Your task to perform on an android device: install app "eBay: The shopping marketplace" Image 0: 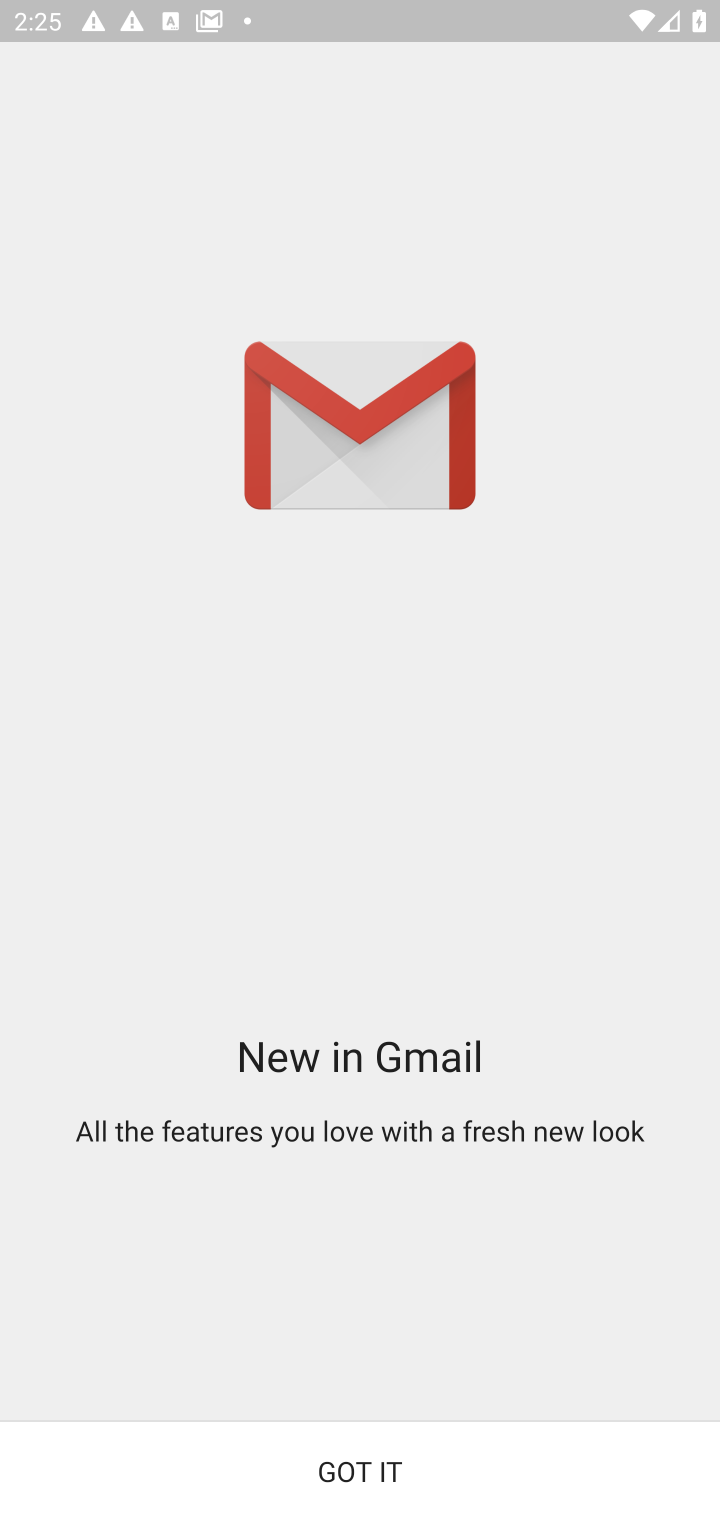
Step 0: press home button
Your task to perform on an android device: install app "eBay: The shopping marketplace" Image 1: 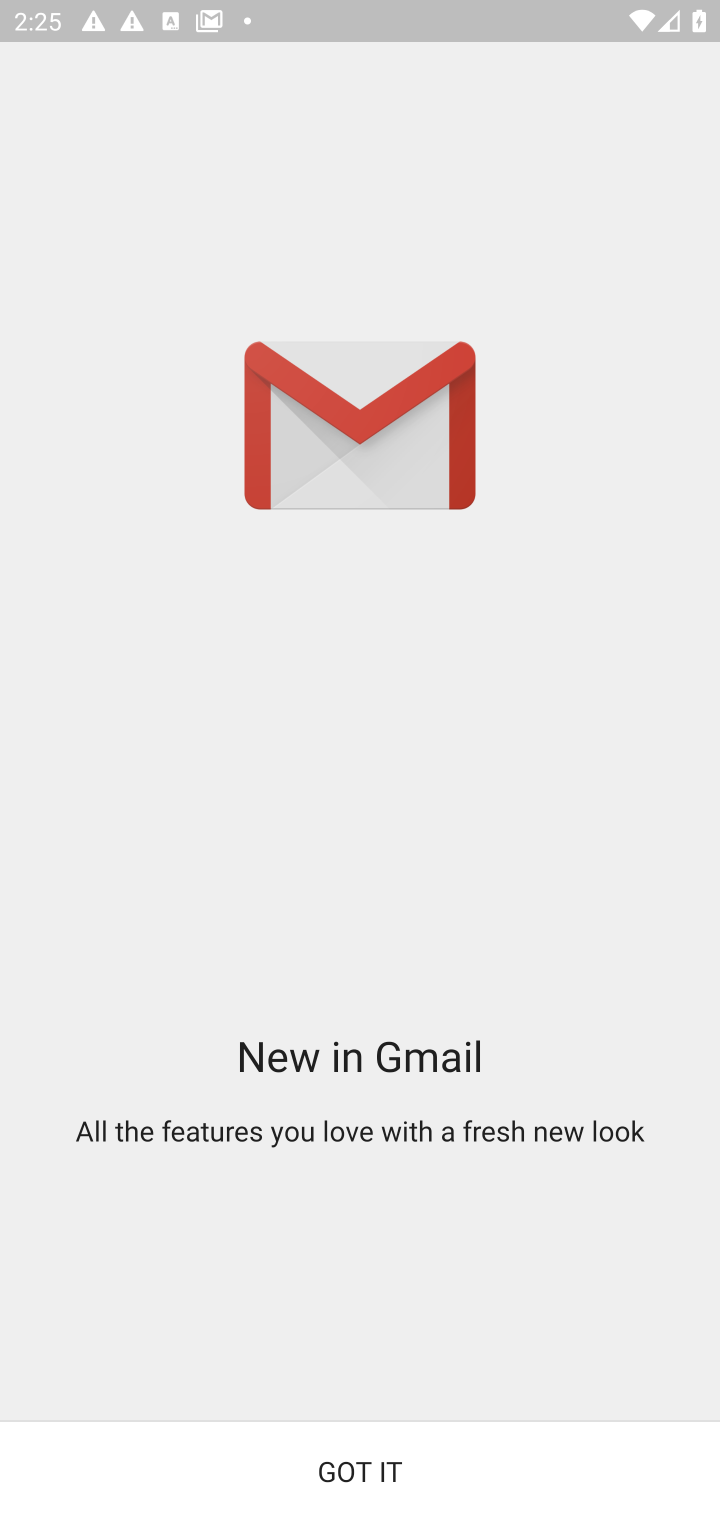
Step 1: press home button
Your task to perform on an android device: install app "eBay: The shopping marketplace" Image 2: 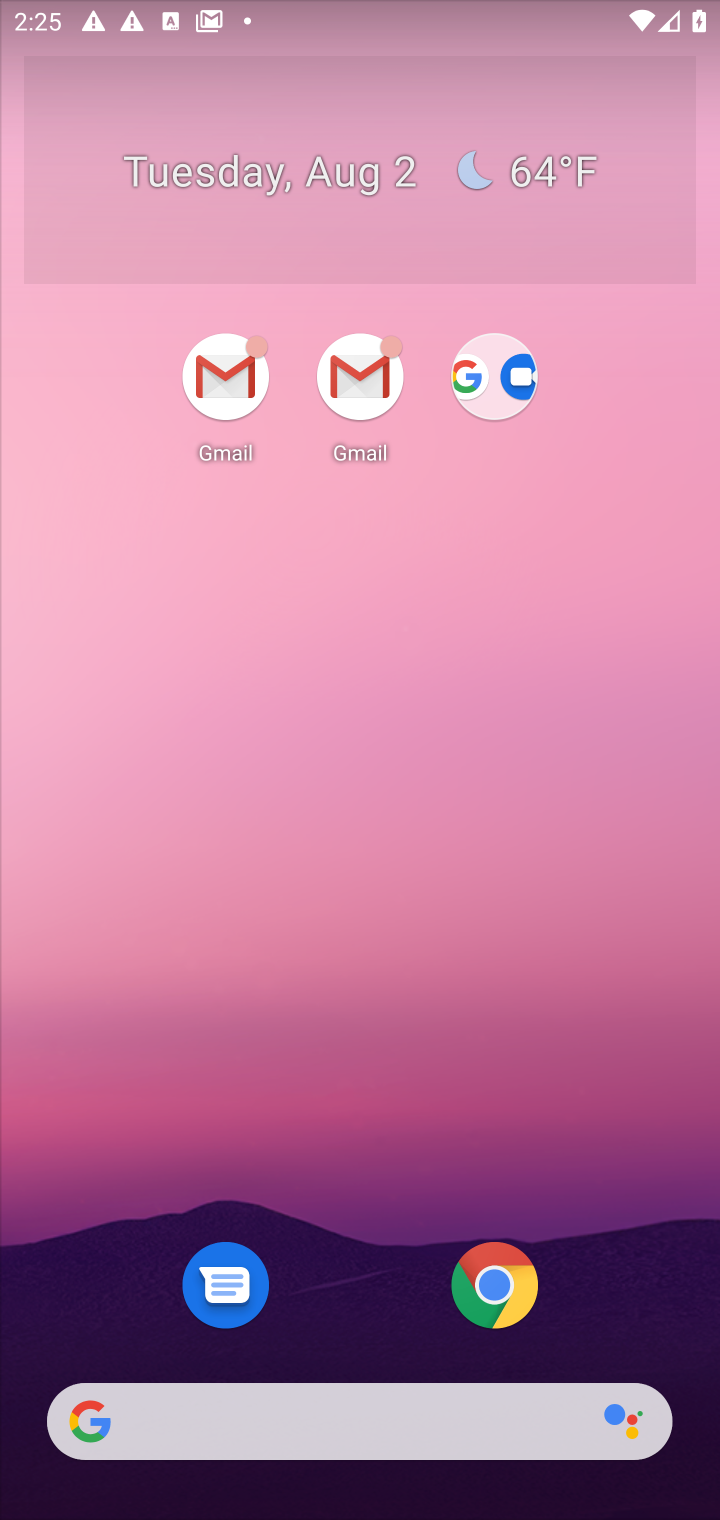
Step 2: drag from (370, 1326) to (446, 85)
Your task to perform on an android device: install app "eBay: The shopping marketplace" Image 3: 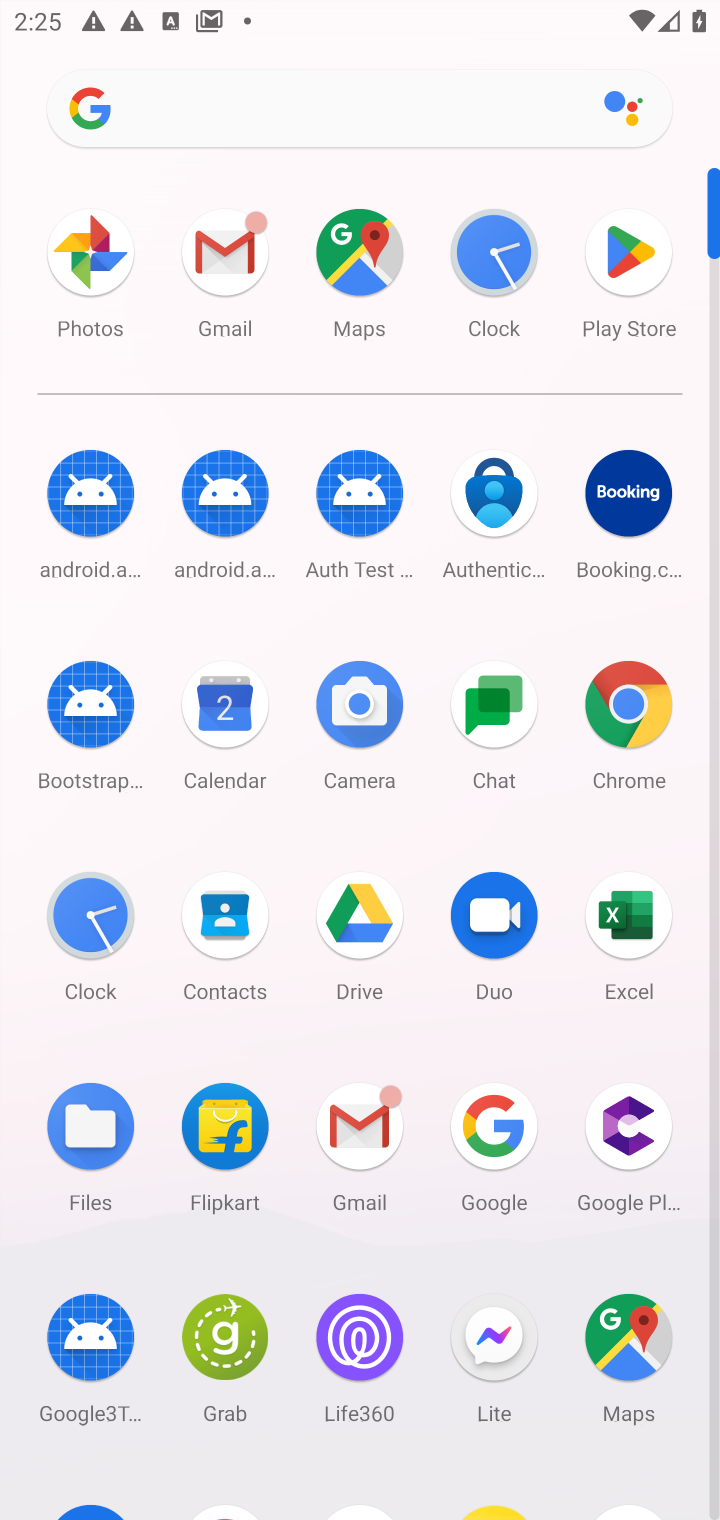
Step 3: drag from (429, 1209) to (406, 298)
Your task to perform on an android device: install app "eBay: The shopping marketplace" Image 4: 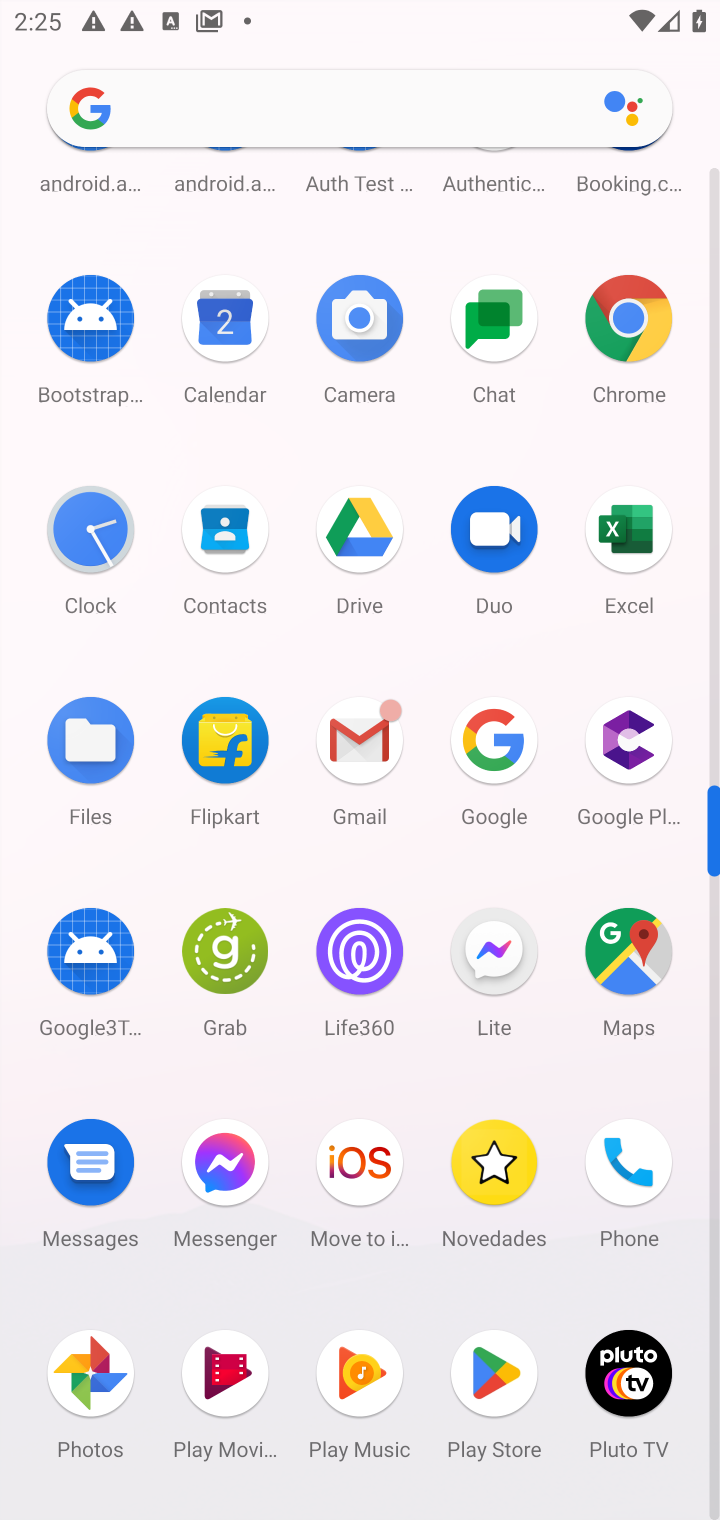
Step 4: click (484, 1367)
Your task to perform on an android device: install app "eBay: The shopping marketplace" Image 5: 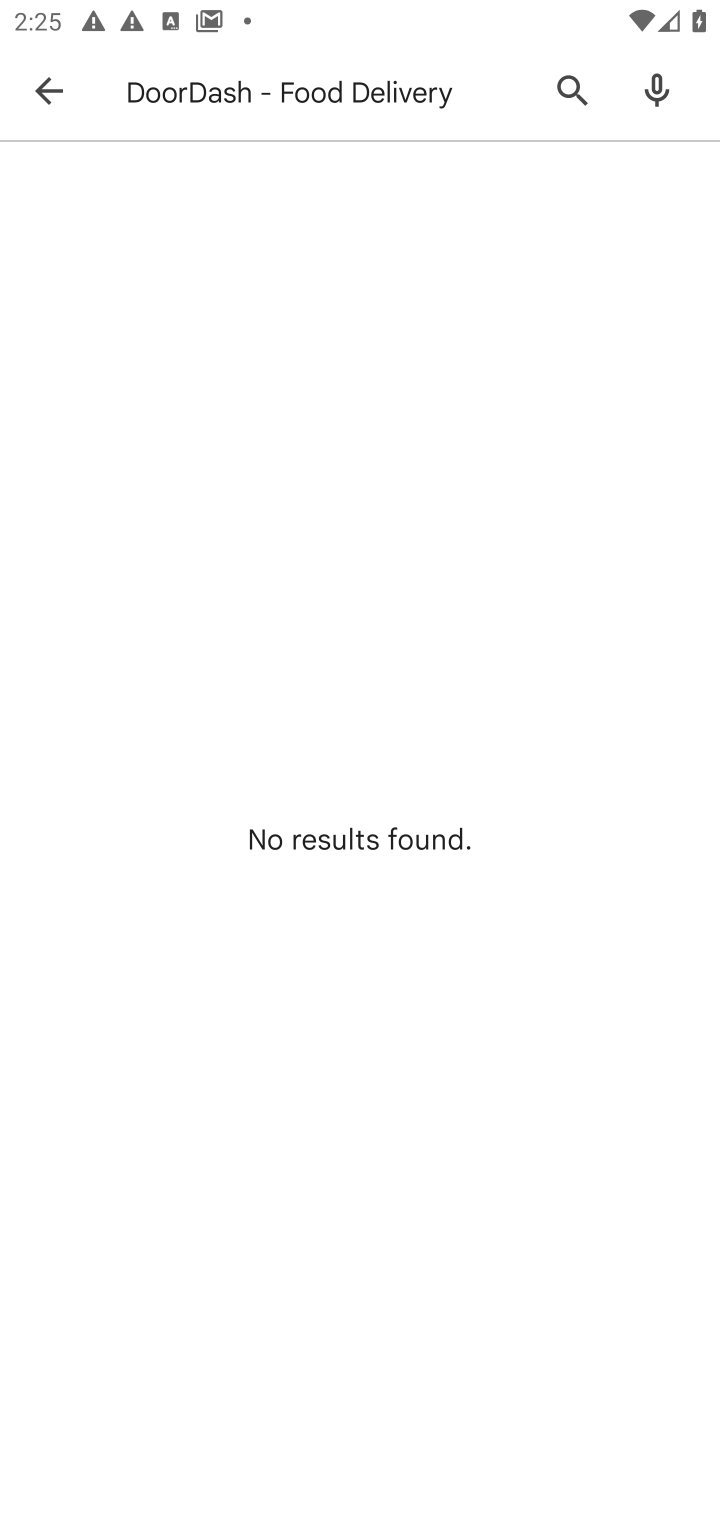
Step 5: click (365, 103)
Your task to perform on an android device: install app "eBay: The shopping marketplace" Image 6: 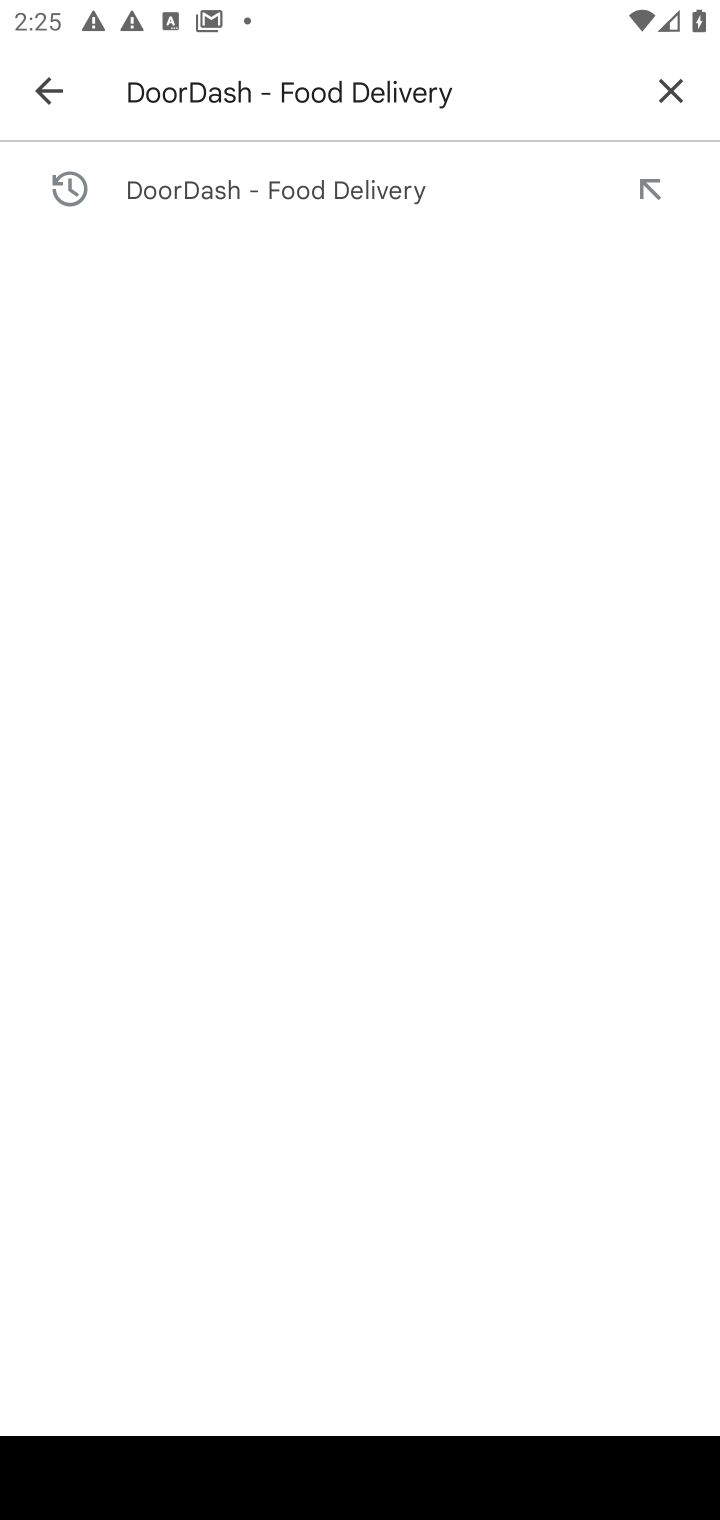
Step 6: click (688, 81)
Your task to perform on an android device: install app "eBay: The shopping marketplace" Image 7: 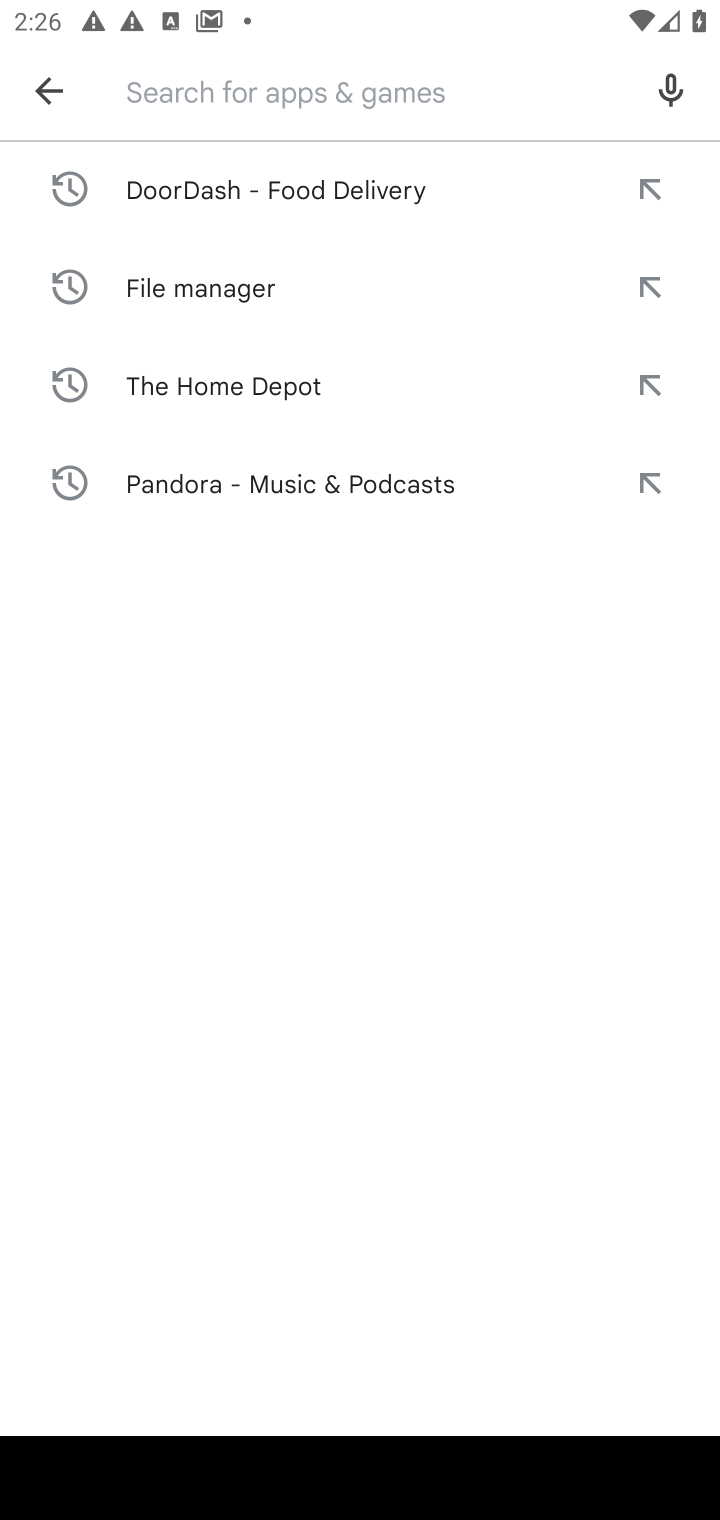
Step 7: type "eBay: The shopping marketplace"
Your task to perform on an android device: install app "eBay: The shopping marketplace" Image 8: 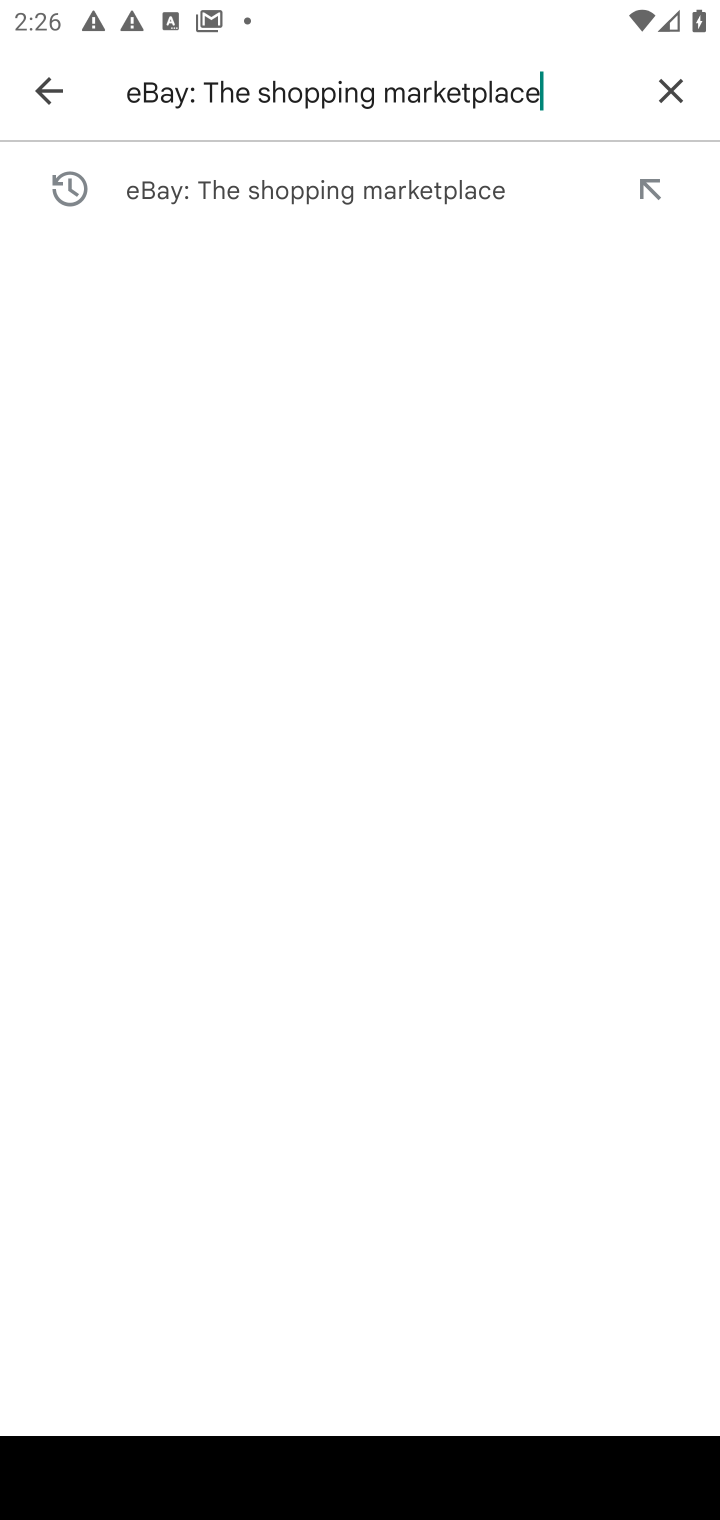
Step 8: click (332, 171)
Your task to perform on an android device: install app "eBay: The shopping marketplace" Image 9: 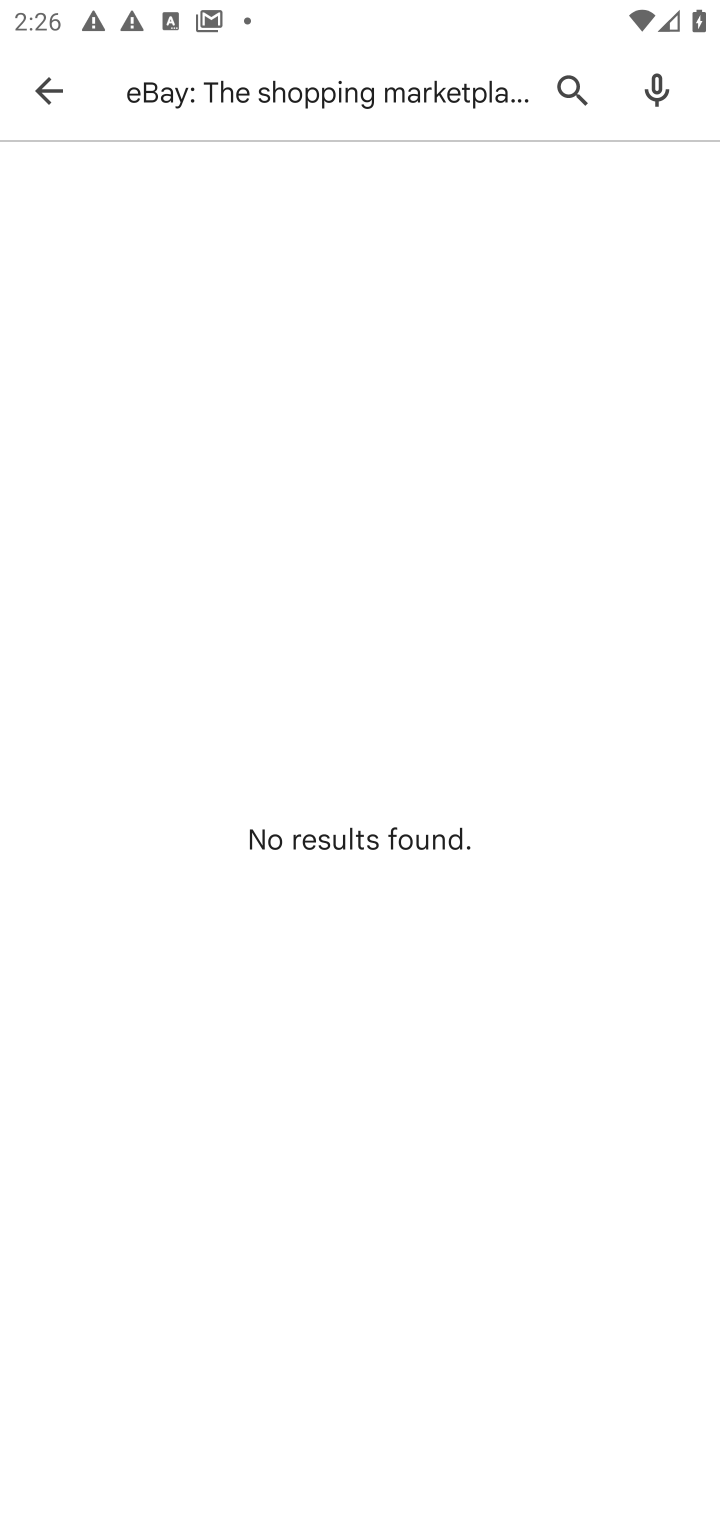
Step 9: task complete